Your task to perform on an android device: View the shopping cart on target. Search for "bose soundlink" on target, select the first entry, add it to the cart, then select checkout. Image 0: 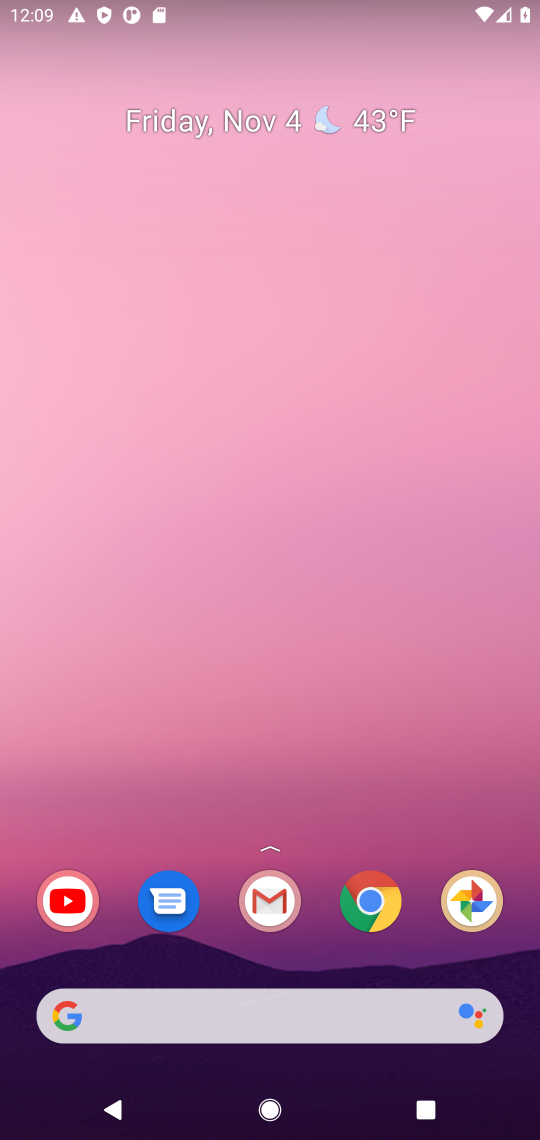
Step 0: click (382, 898)
Your task to perform on an android device: View the shopping cart on target. Search for "bose soundlink" on target, select the first entry, add it to the cart, then select checkout. Image 1: 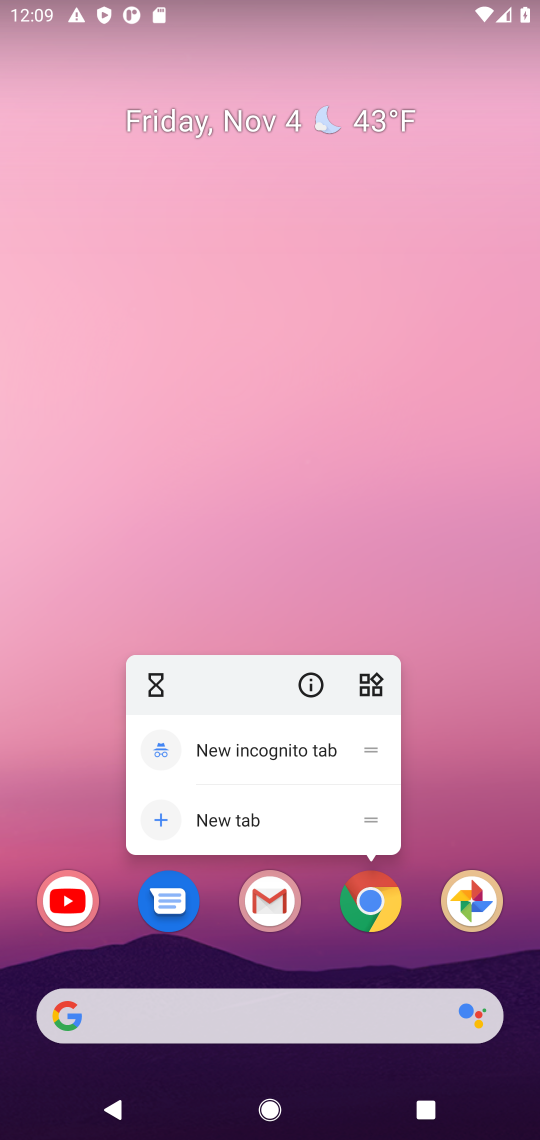
Step 1: click (382, 898)
Your task to perform on an android device: View the shopping cart on target. Search for "bose soundlink" on target, select the first entry, add it to the cart, then select checkout. Image 2: 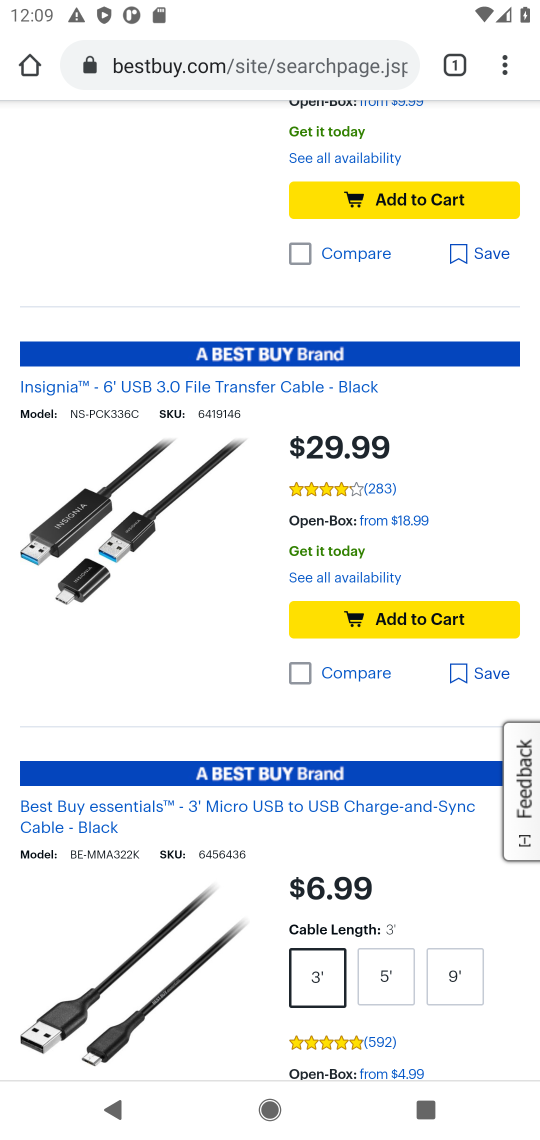
Step 2: click (324, 52)
Your task to perform on an android device: View the shopping cart on target. Search for "bose soundlink" on target, select the first entry, add it to the cart, then select checkout. Image 3: 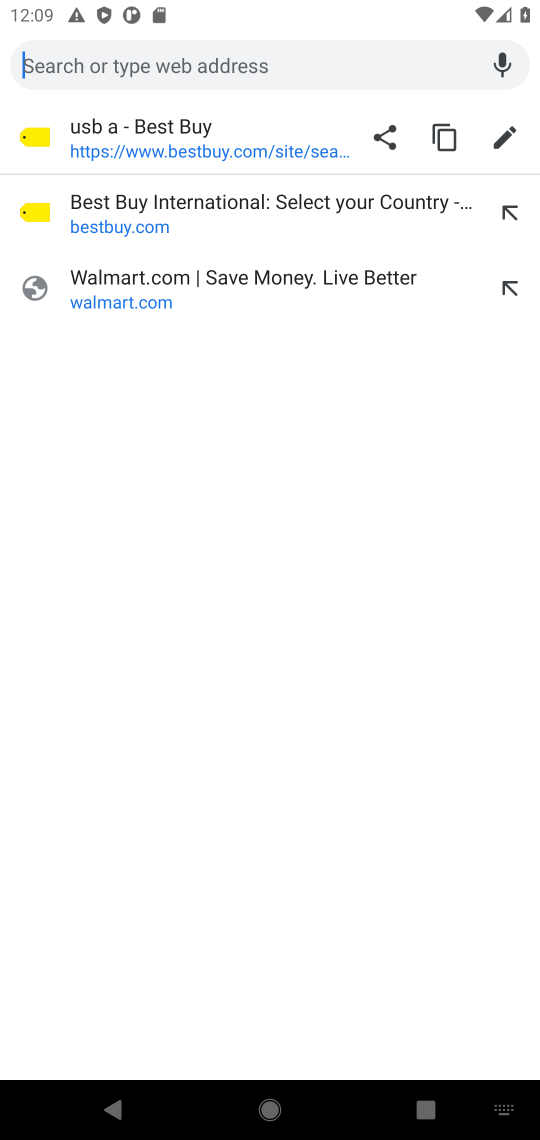
Step 3: type "target"
Your task to perform on an android device: View the shopping cart on target. Search for "bose soundlink" on target, select the first entry, add it to the cart, then select checkout. Image 4: 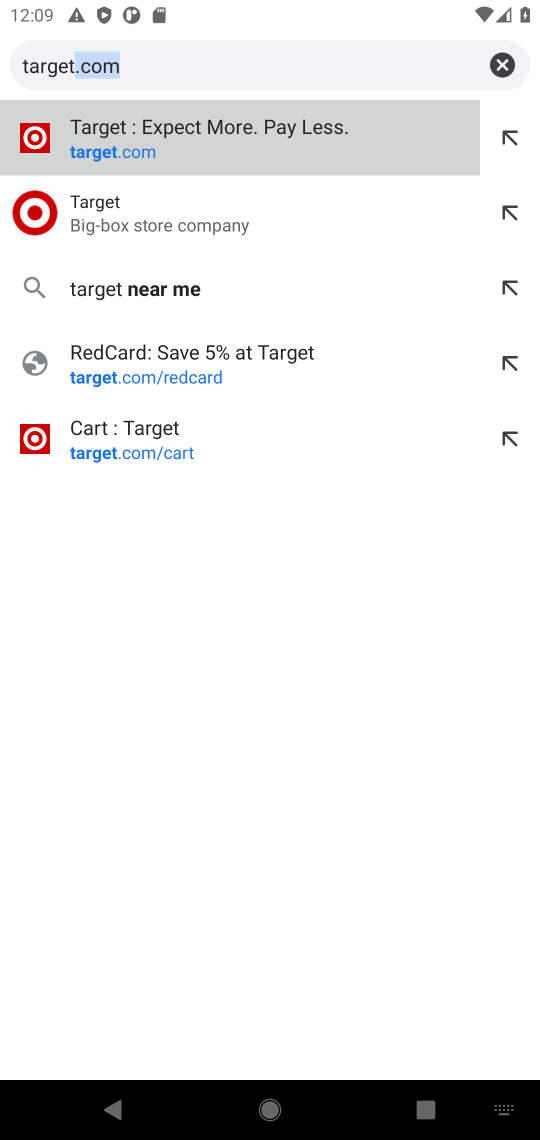
Step 4: click (243, 119)
Your task to perform on an android device: View the shopping cart on target. Search for "bose soundlink" on target, select the first entry, add it to the cart, then select checkout. Image 5: 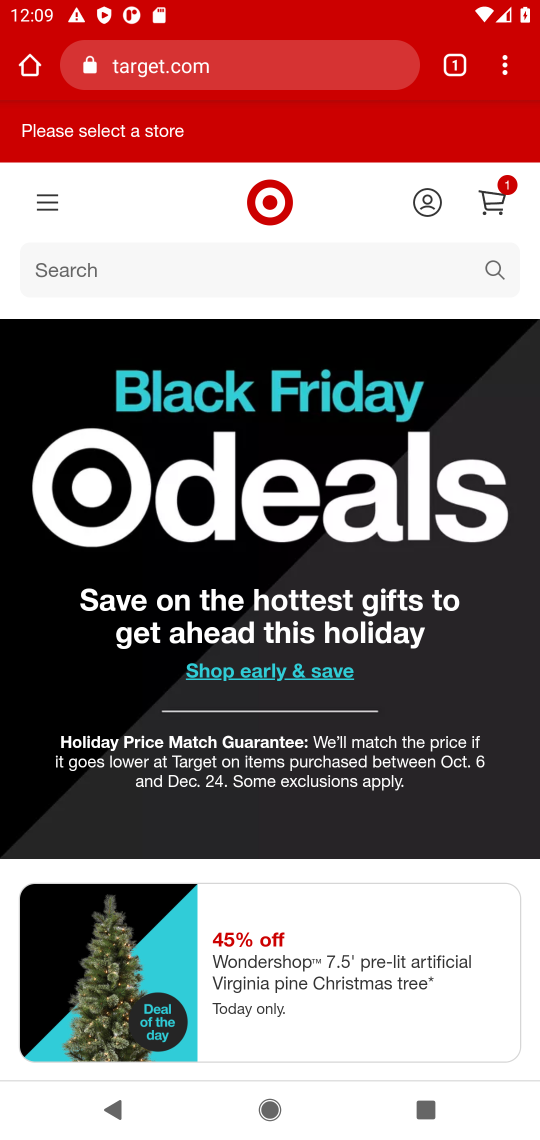
Step 5: click (497, 264)
Your task to perform on an android device: View the shopping cart on target. Search for "bose soundlink" on target, select the first entry, add it to the cart, then select checkout. Image 6: 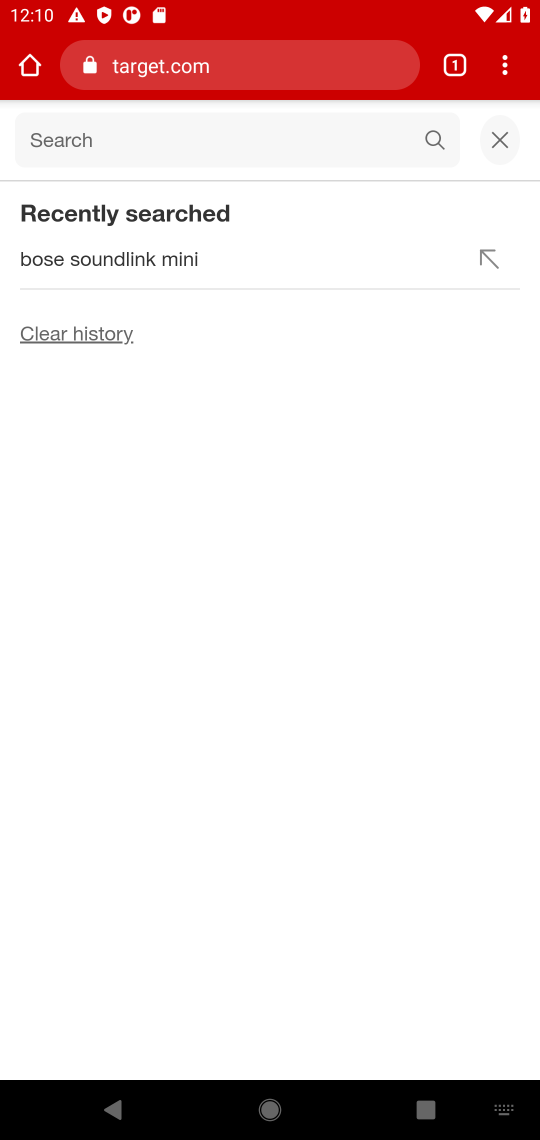
Step 6: type "bose soundlink"
Your task to perform on an android device: View the shopping cart on target. Search for "bose soundlink" on target, select the first entry, add it to the cart, then select checkout. Image 7: 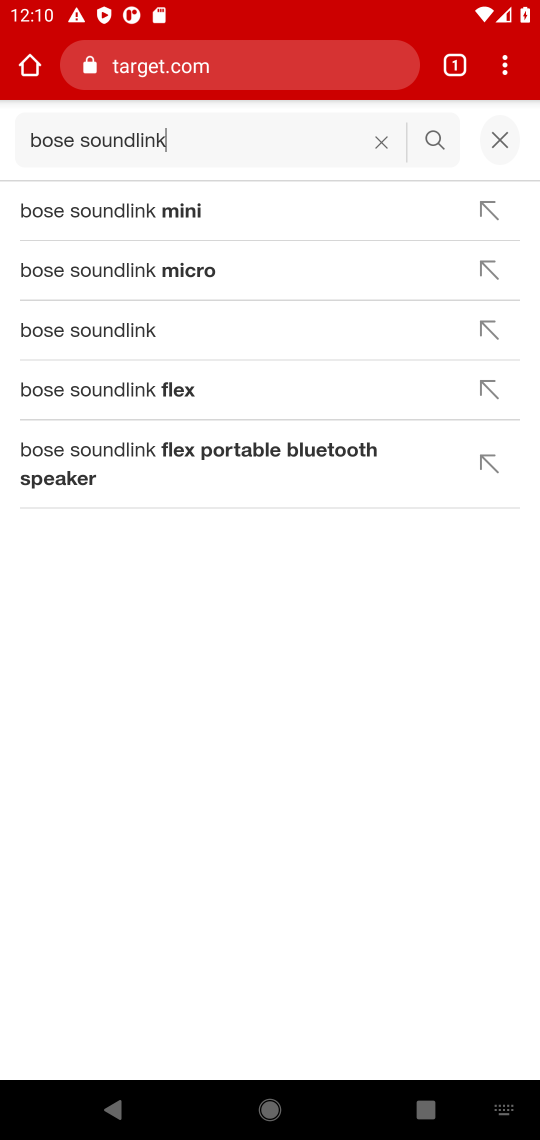
Step 7: click (140, 137)
Your task to perform on an android device: View the shopping cart on target. Search for "bose soundlink" on target, select the first entry, add it to the cart, then select checkout. Image 8: 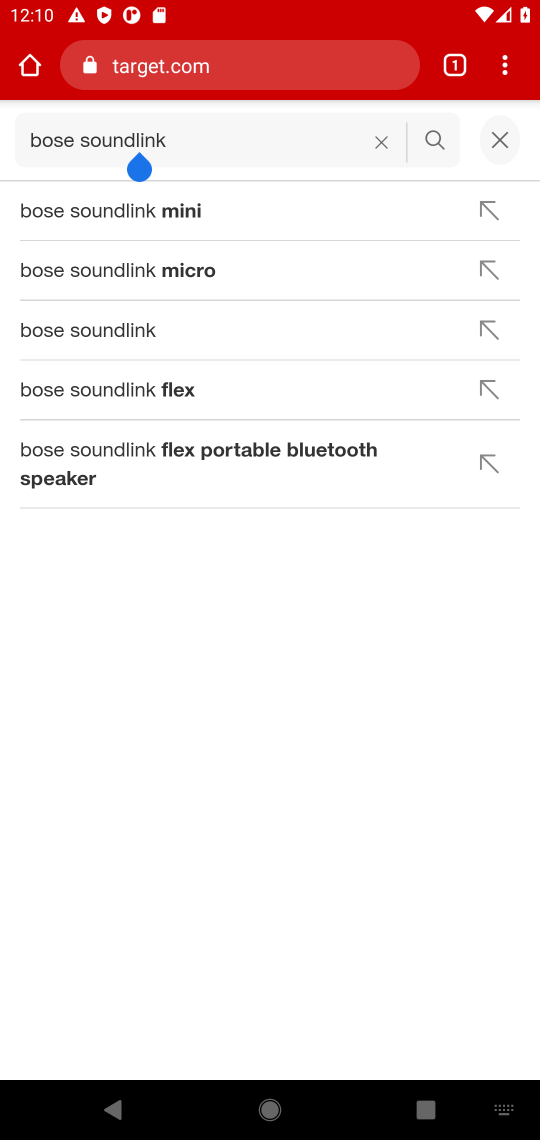
Step 8: click (125, 323)
Your task to perform on an android device: View the shopping cart on target. Search for "bose soundlink" on target, select the first entry, add it to the cart, then select checkout. Image 9: 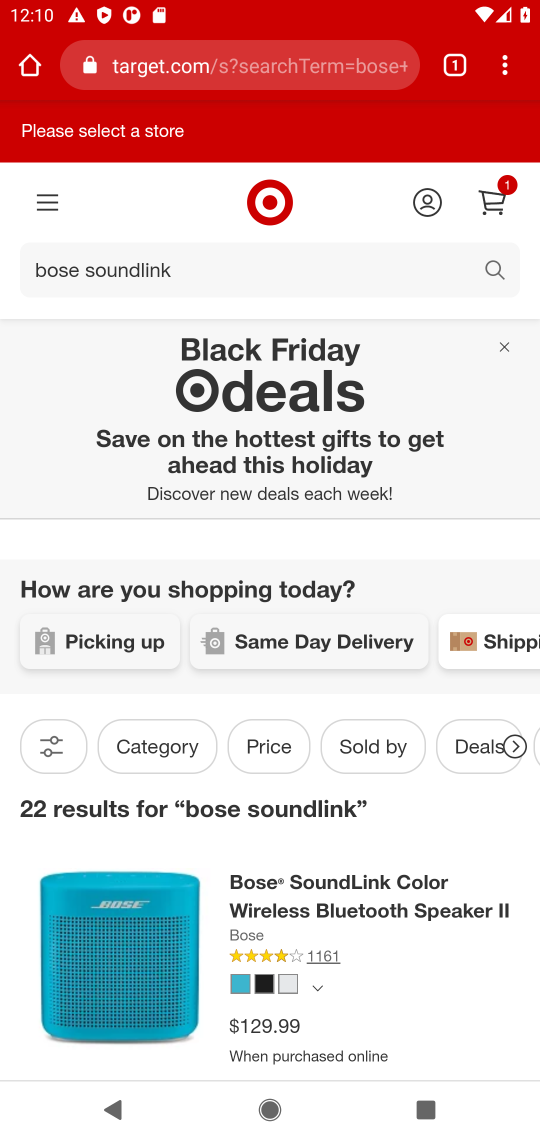
Step 9: drag from (400, 882) to (417, 485)
Your task to perform on an android device: View the shopping cart on target. Search for "bose soundlink" on target, select the first entry, add it to the cart, then select checkout. Image 10: 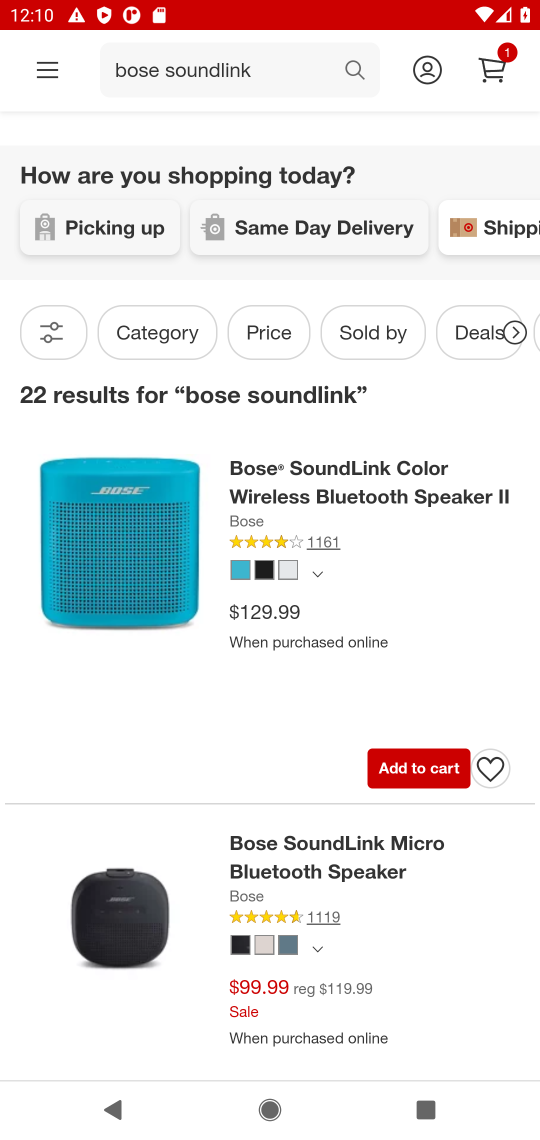
Step 10: click (85, 512)
Your task to perform on an android device: View the shopping cart on target. Search for "bose soundlink" on target, select the first entry, add it to the cart, then select checkout. Image 11: 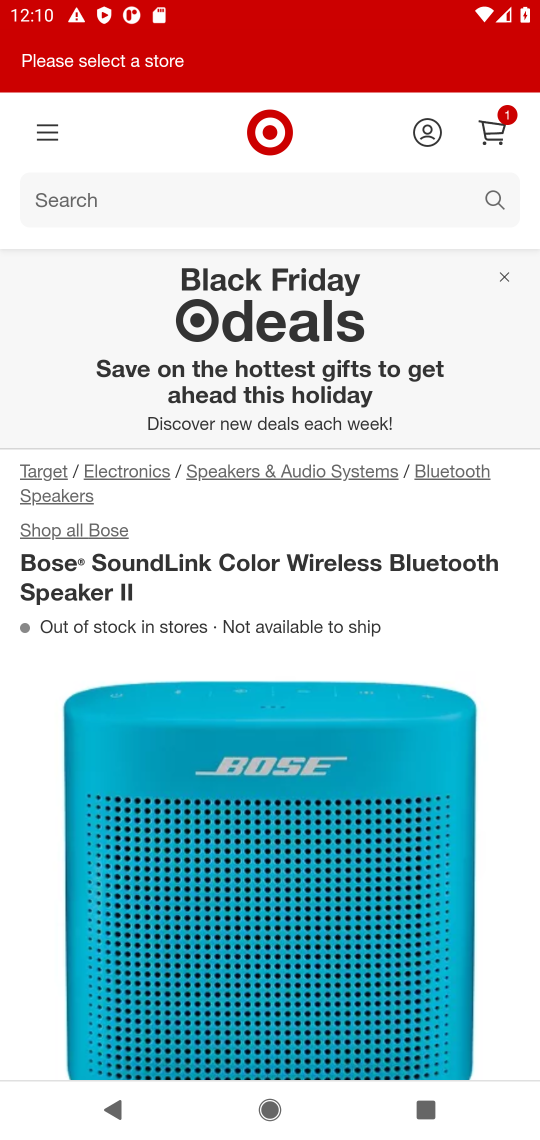
Step 11: drag from (436, 793) to (421, 317)
Your task to perform on an android device: View the shopping cart on target. Search for "bose soundlink" on target, select the first entry, add it to the cart, then select checkout. Image 12: 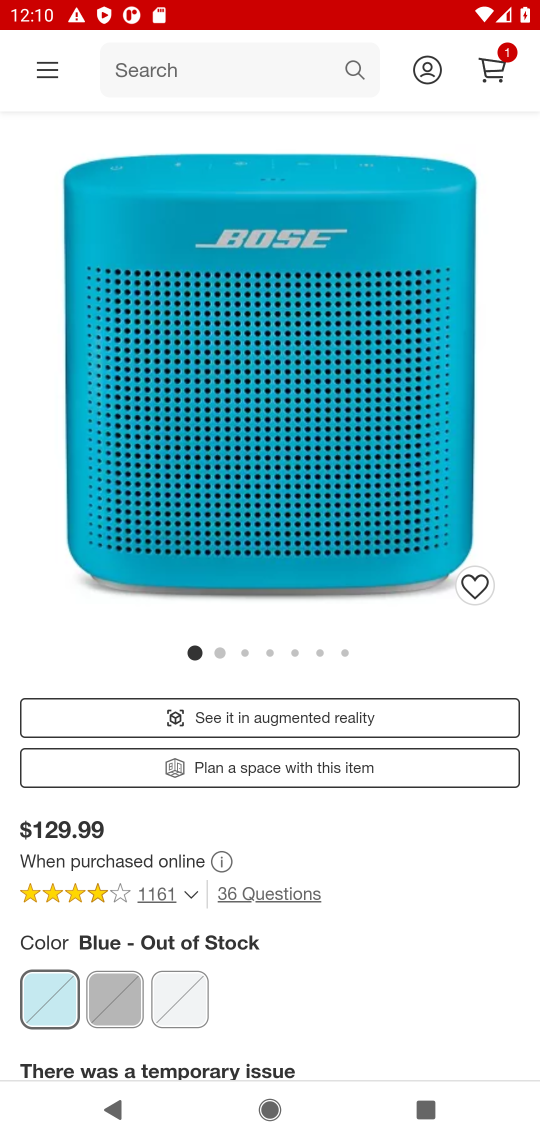
Step 12: drag from (402, 926) to (367, 460)
Your task to perform on an android device: View the shopping cart on target. Search for "bose soundlink" on target, select the first entry, add it to the cart, then select checkout. Image 13: 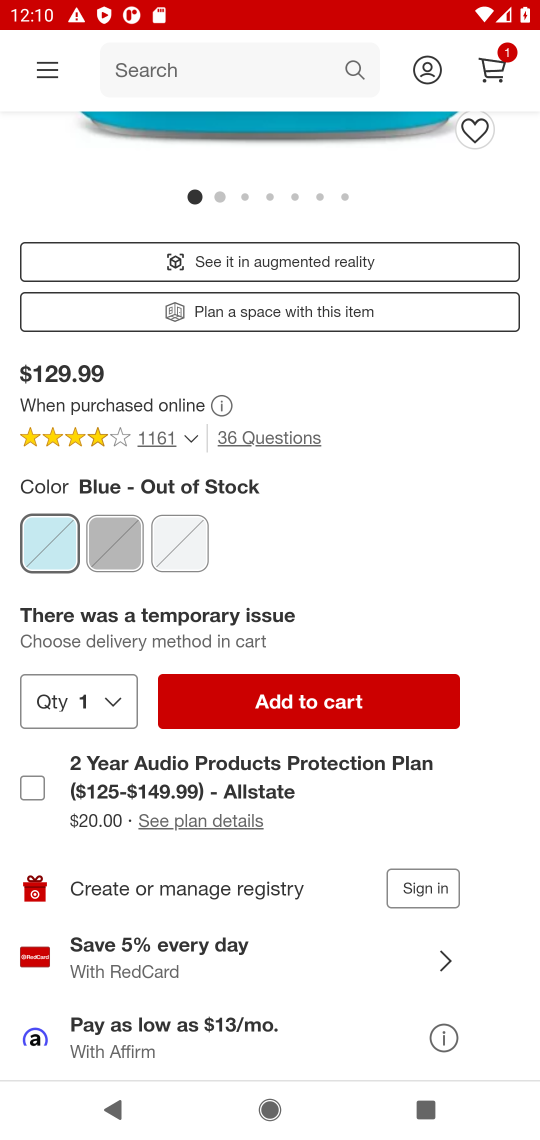
Step 13: click (347, 694)
Your task to perform on an android device: View the shopping cart on target. Search for "bose soundlink" on target, select the first entry, add it to the cart, then select checkout. Image 14: 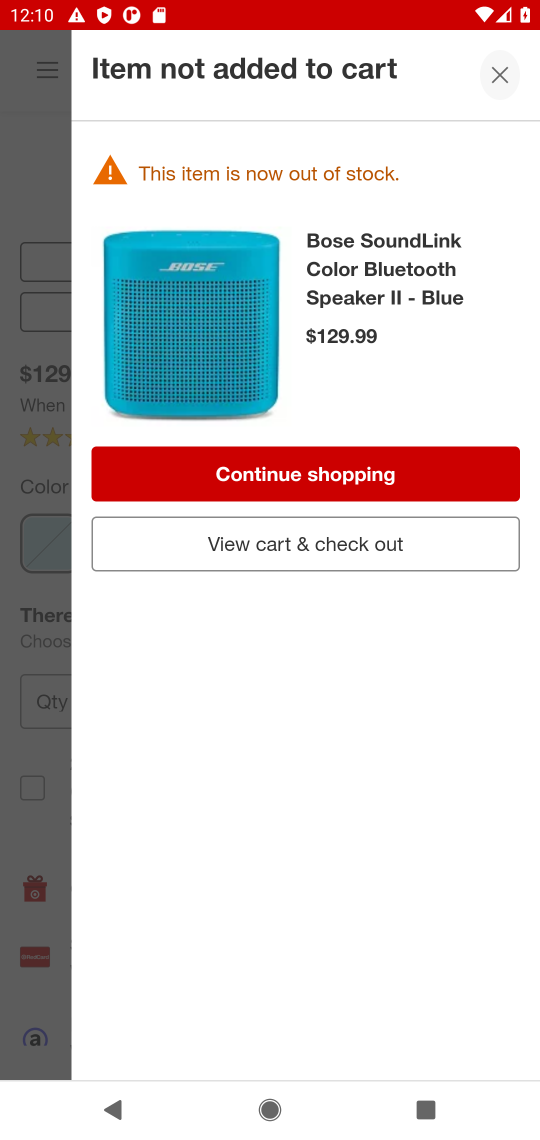
Step 14: click (354, 539)
Your task to perform on an android device: View the shopping cart on target. Search for "bose soundlink" on target, select the first entry, add it to the cart, then select checkout. Image 15: 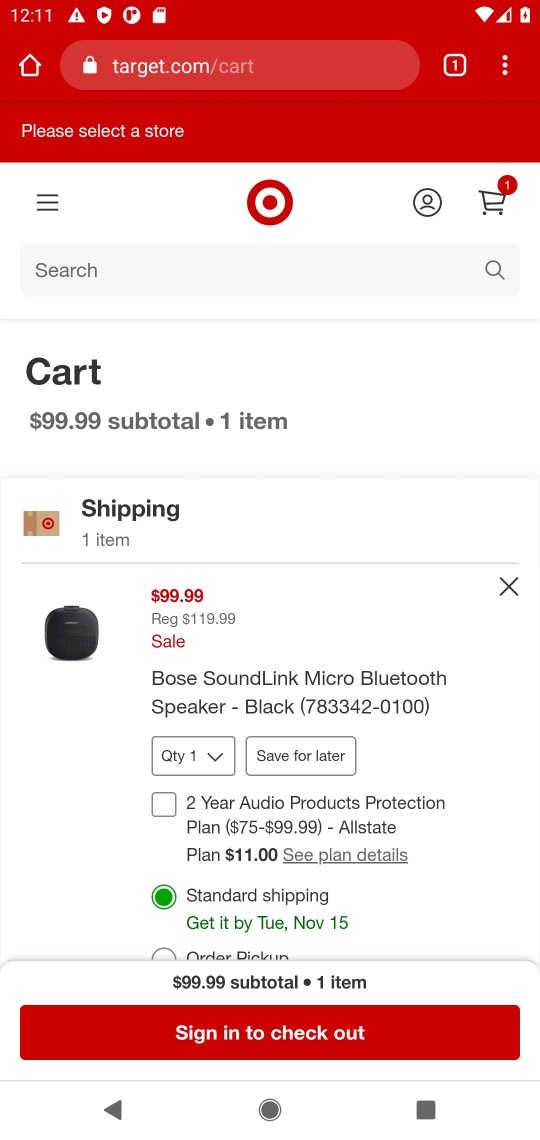
Step 15: click (364, 1025)
Your task to perform on an android device: View the shopping cart on target. Search for "bose soundlink" on target, select the first entry, add it to the cart, then select checkout. Image 16: 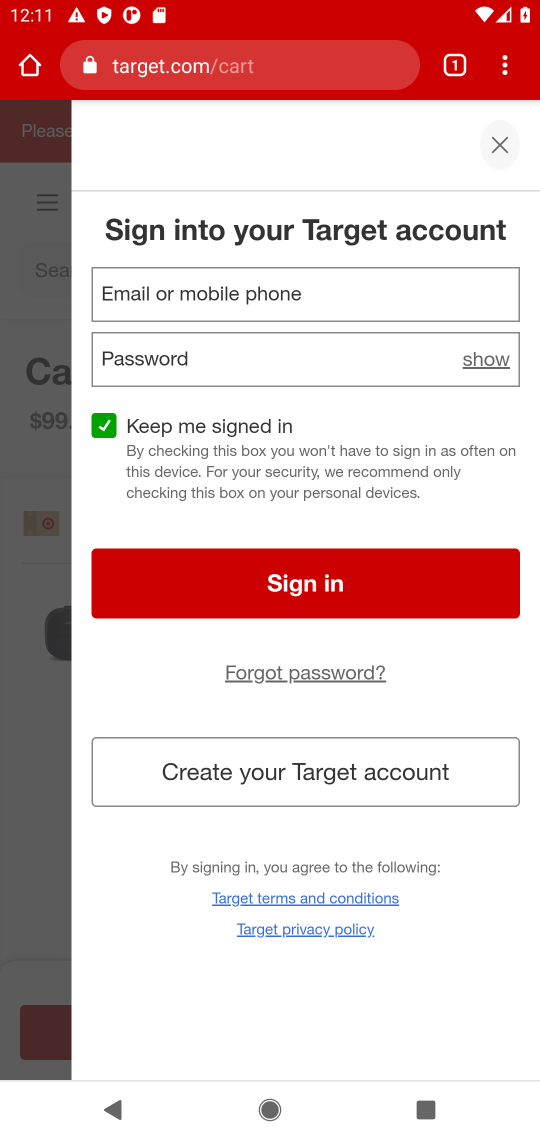
Step 16: task complete